Your task to perform on an android device: toggle sleep mode Image 0: 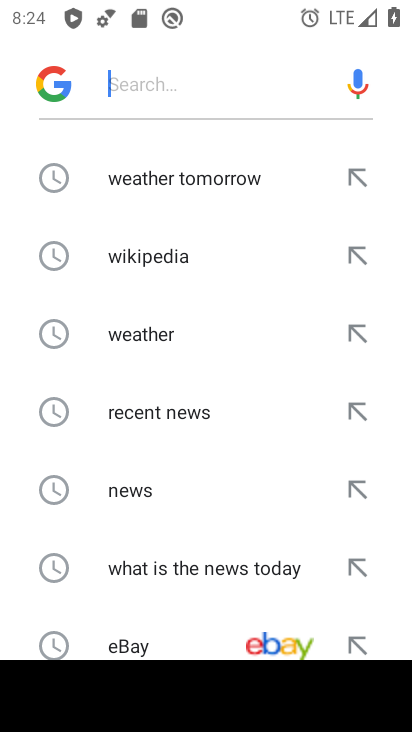
Step 0: press home button
Your task to perform on an android device: toggle sleep mode Image 1: 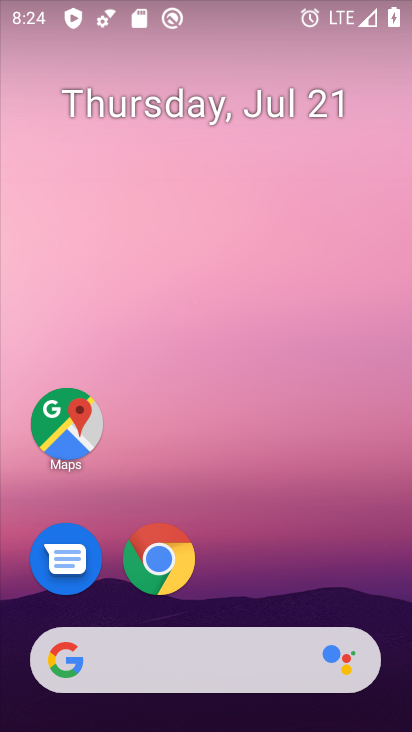
Step 1: drag from (332, 535) to (356, 158)
Your task to perform on an android device: toggle sleep mode Image 2: 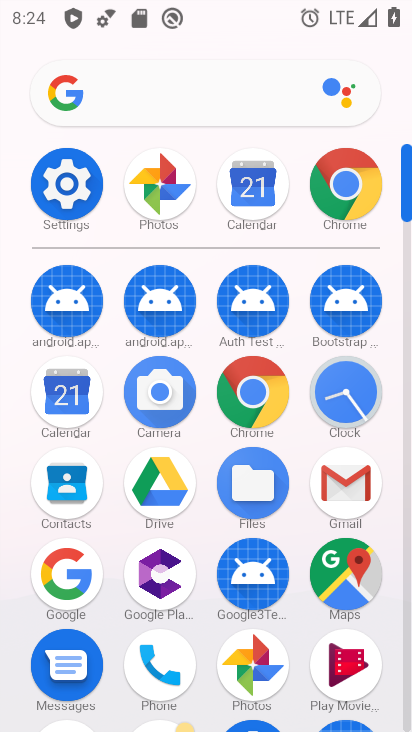
Step 2: click (79, 182)
Your task to perform on an android device: toggle sleep mode Image 3: 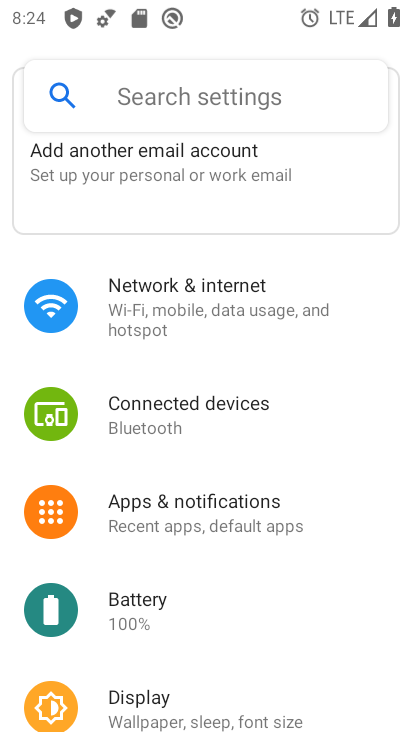
Step 3: drag from (346, 486) to (346, 427)
Your task to perform on an android device: toggle sleep mode Image 4: 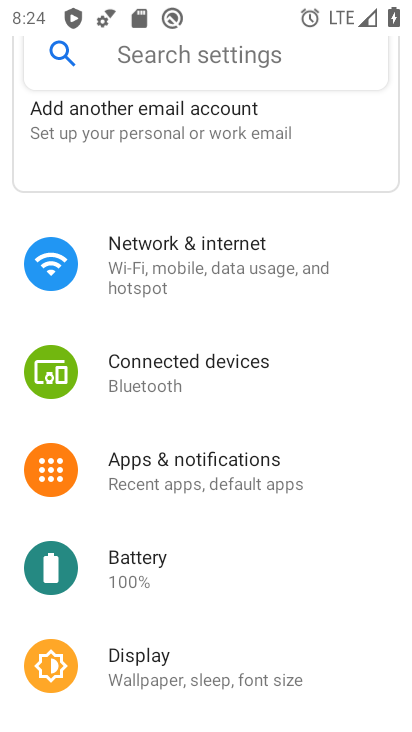
Step 4: drag from (358, 521) to (362, 446)
Your task to perform on an android device: toggle sleep mode Image 5: 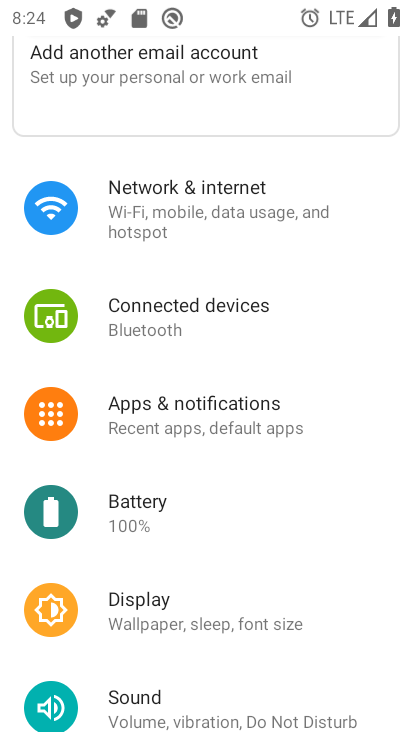
Step 5: drag from (363, 568) to (363, 458)
Your task to perform on an android device: toggle sleep mode Image 6: 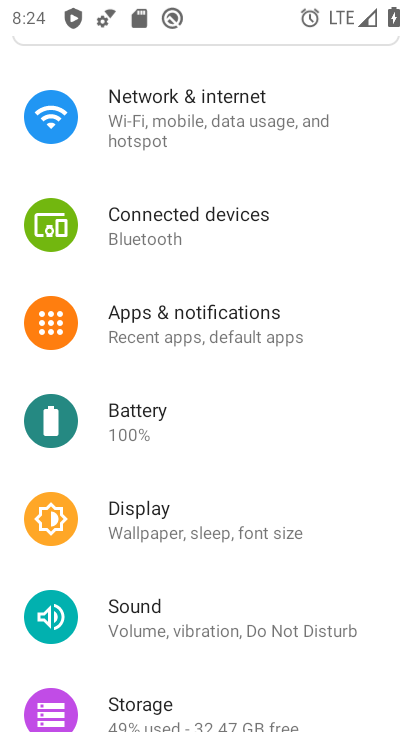
Step 6: drag from (358, 552) to (357, 467)
Your task to perform on an android device: toggle sleep mode Image 7: 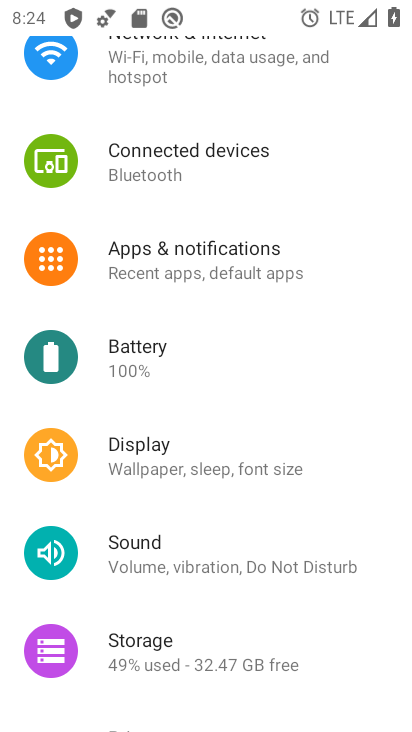
Step 7: drag from (365, 559) to (361, 476)
Your task to perform on an android device: toggle sleep mode Image 8: 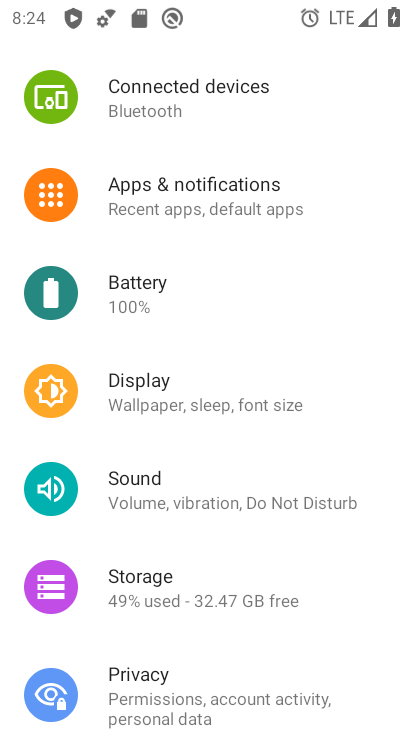
Step 8: drag from (357, 599) to (362, 479)
Your task to perform on an android device: toggle sleep mode Image 9: 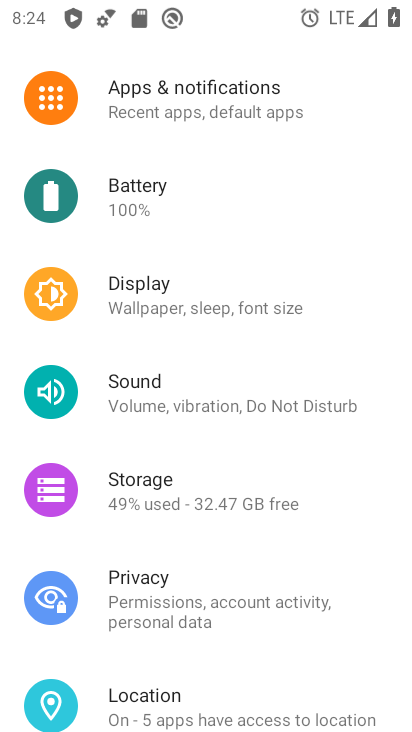
Step 9: drag from (368, 635) to (378, 516)
Your task to perform on an android device: toggle sleep mode Image 10: 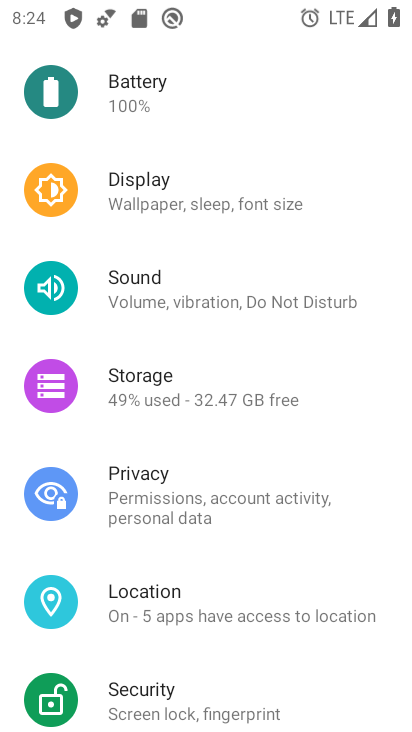
Step 10: drag from (340, 632) to (353, 537)
Your task to perform on an android device: toggle sleep mode Image 11: 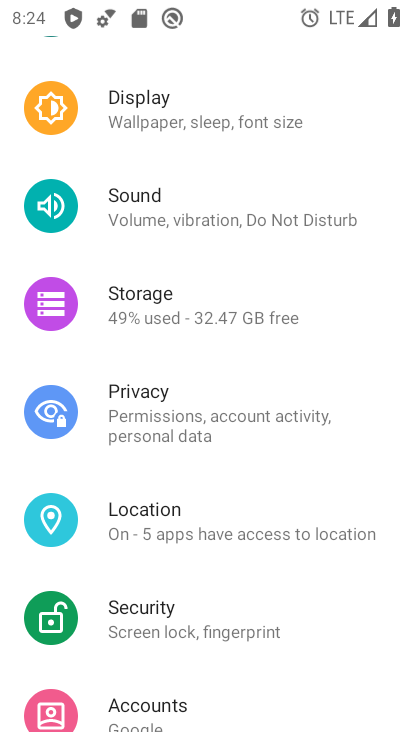
Step 11: drag from (369, 351) to (371, 437)
Your task to perform on an android device: toggle sleep mode Image 12: 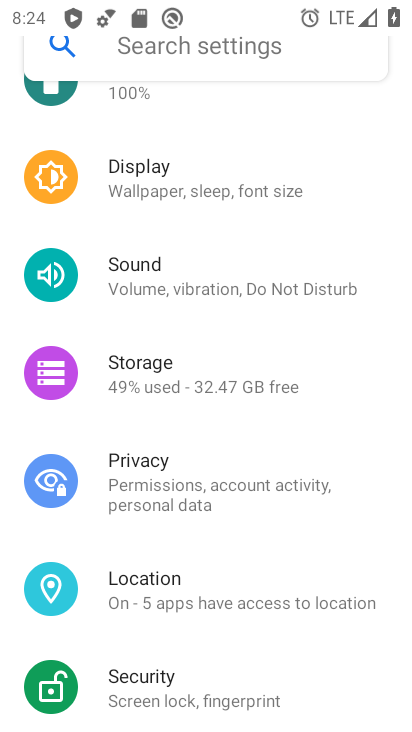
Step 12: drag from (367, 331) to (369, 417)
Your task to perform on an android device: toggle sleep mode Image 13: 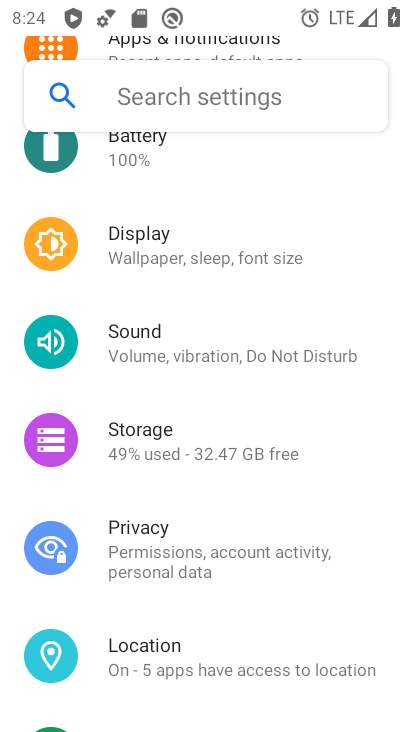
Step 13: drag from (356, 287) to (360, 435)
Your task to perform on an android device: toggle sleep mode Image 14: 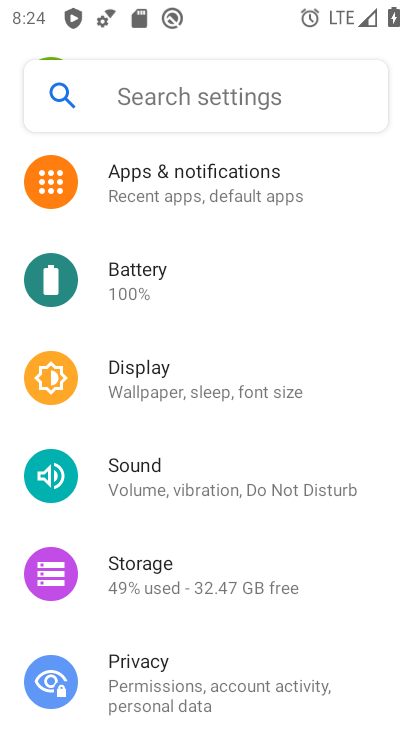
Step 14: drag from (363, 263) to (361, 382)
Your task to perform on an android device: toggle sleep mode Image 15: 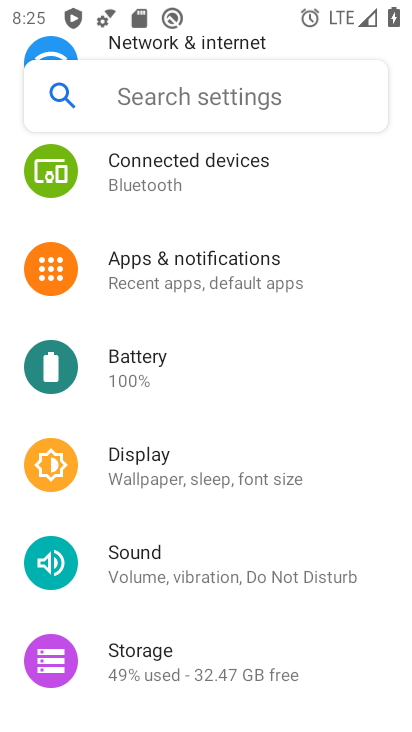
Step 15: click (241, 465)
Your task to perform on an android device: toggle sleep mode Image 16: 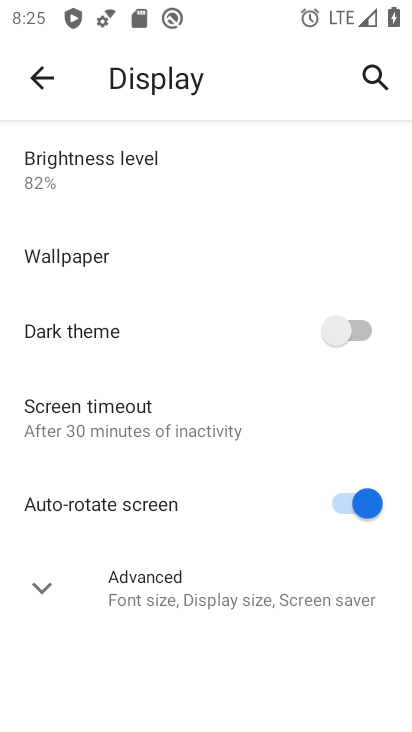
Step 16: click (184, 575)
Your task to perform on an android device: toggle sleep mode Image 17: 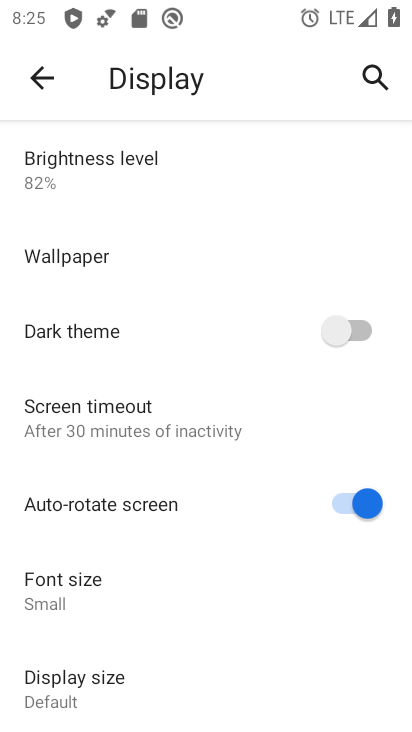
Step 17: task complete